Your task to perform on an android device: check battery use Image 0: 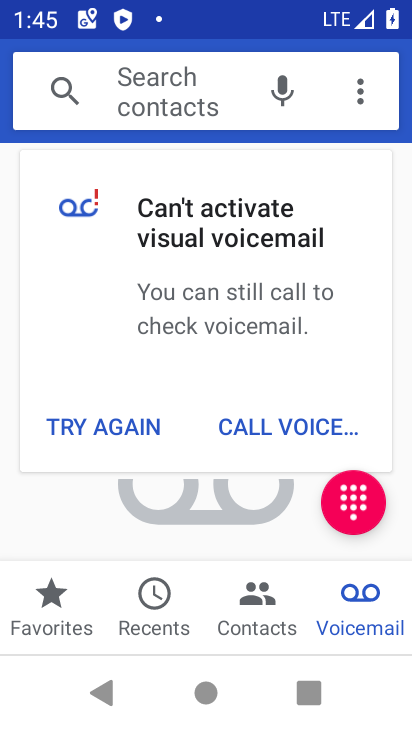
Step 0: press home button
Your task to perform on an android device: check battery use Image 1: 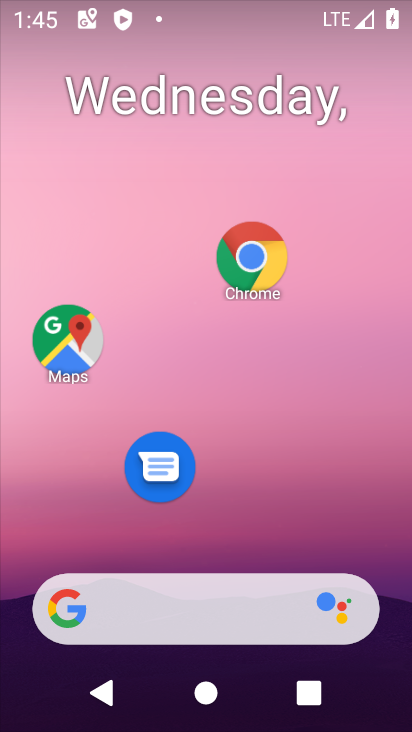
Step 1: drag from (244, 517) to (269, 73)
Your task to perform on an android device: check battery use Image 2: 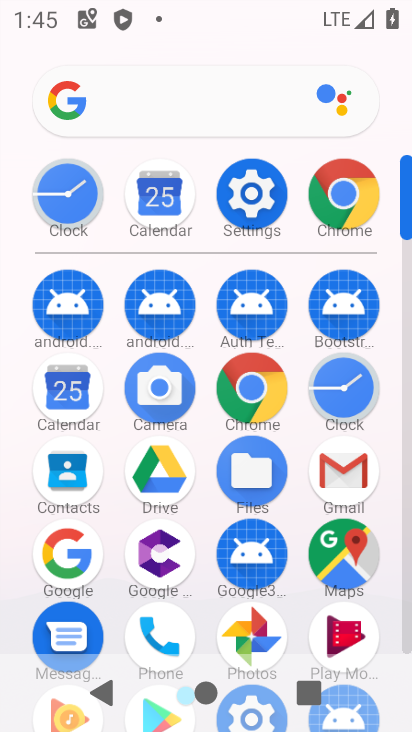
Step 2: click (245, 199)
Your task to perform on an android device: check battery use Image 3: 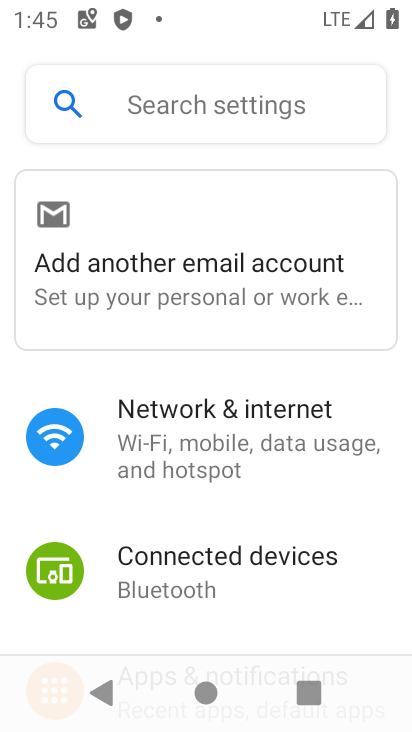
Step 3: drag from (236, 621) to (267, 230)
Your task to perform on an android device: check battery use Image 4: 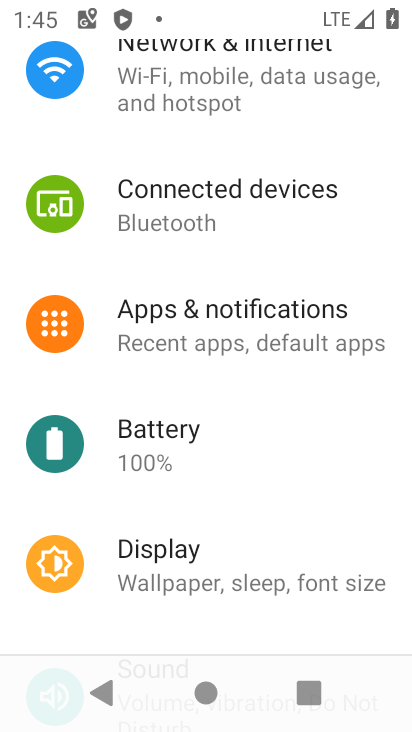
Step 4: click (171, 447)
Your task to perform on an android device: check battery use Image 5: 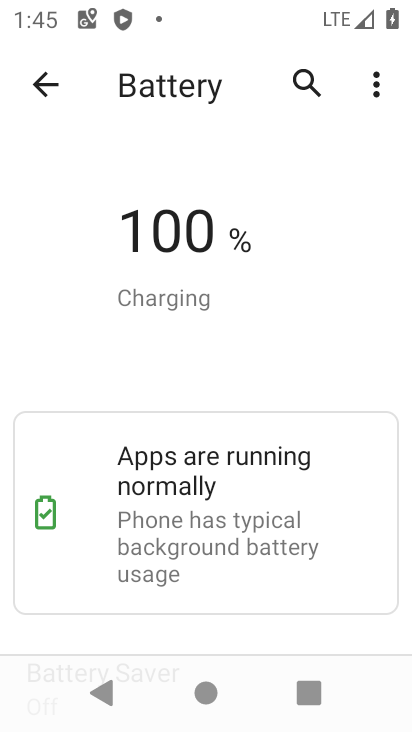
Step 5: task complete